Your task to perform on an android device: Turn off the flashlight Image 0: 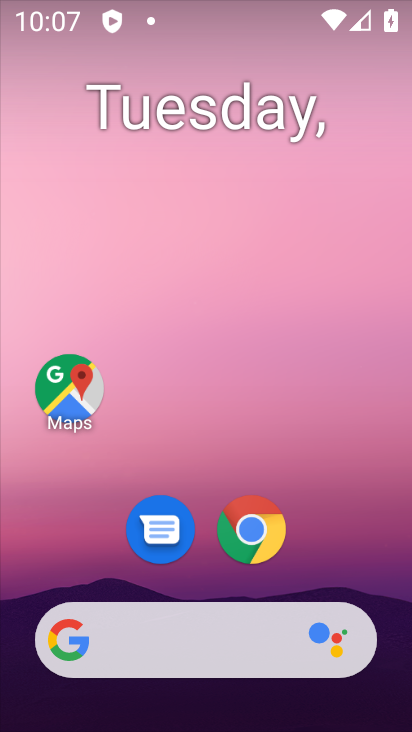
Step 0: drag from (182, 587) to (237, 154)
Your task to perform on an android device: Turn off the flashlight Image 1: 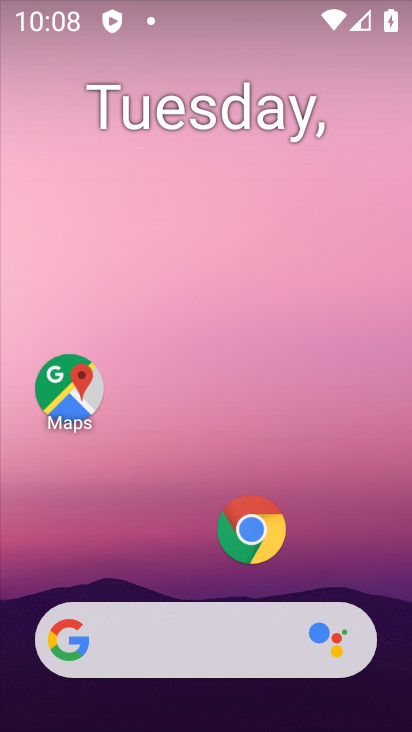
Step 1: drag from (187, 396) to (217, 121)
Your task to perform on an android device: Turn off the flashlight Image 2: 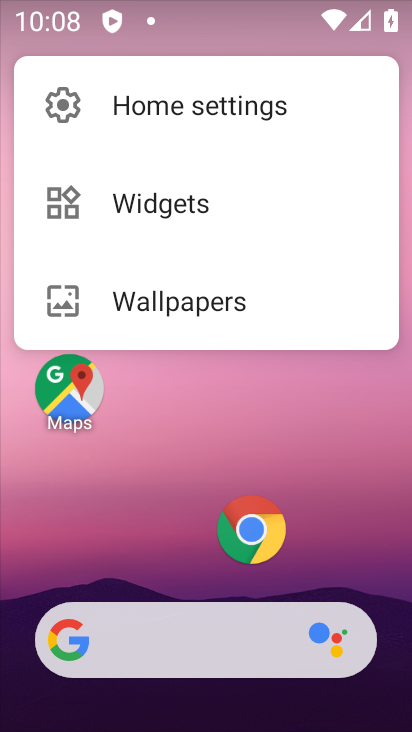
Step 2: click (148, 525)
Your task to perform on an android device: Turn off the flashlight Image 3: 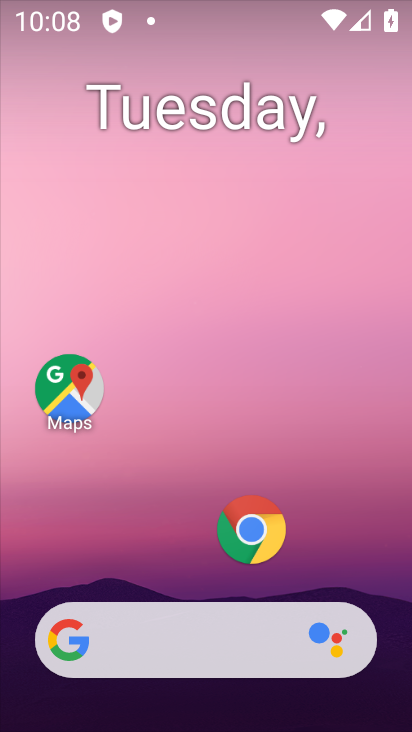
Step 3: drag from (147, 583) to (218, 104)
Your task to perform on an android device: Turn off the flashlight Image 4: 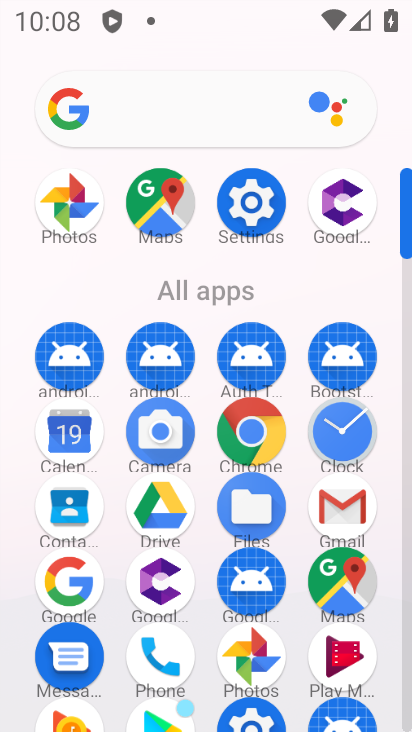
Step 4: click (250, 213)
Your task to perform on an android device: Turn off the flashlight Image 5: 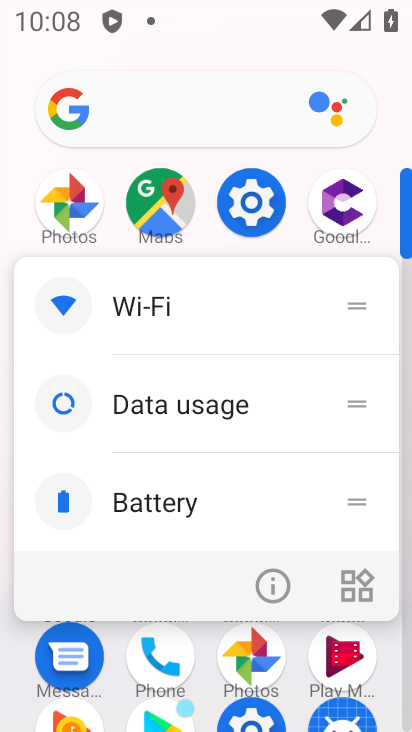
Step 5: click (239, 202)
Your task to perform on an android device: Turn off the flashlight Image 6: 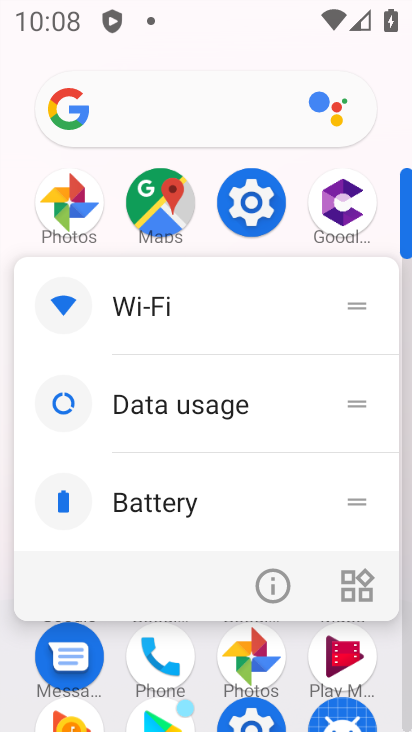
Step 6: click (269, 583)
Your task to perform on an android device: Turn off the flashlight Image 7: 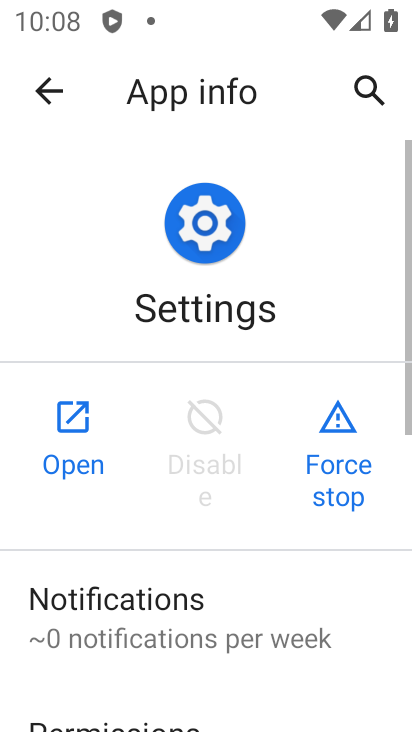
Step 7: click (59, 449)
Your task to perform on an android device: Turn off the flashlight Image 8: 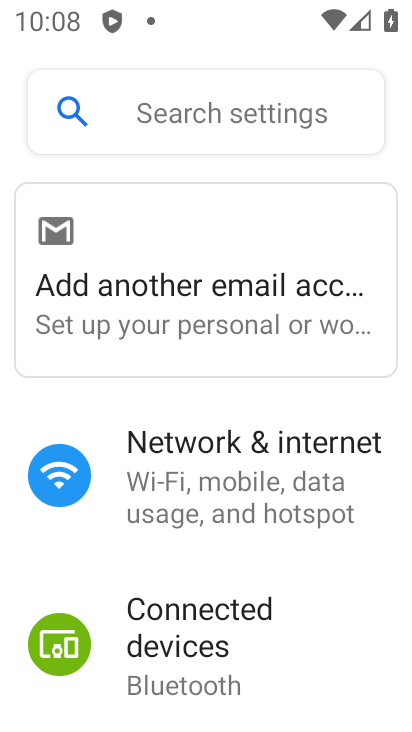
Step 8: task complete